Your task to perform on an android device: turn notification dots on Image 0: 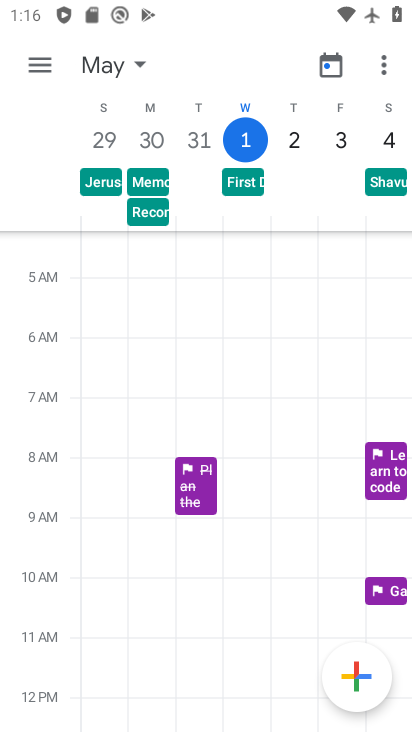
Step 0: press home button
Your task to perform on an android device: turn notification dots on Image 1: 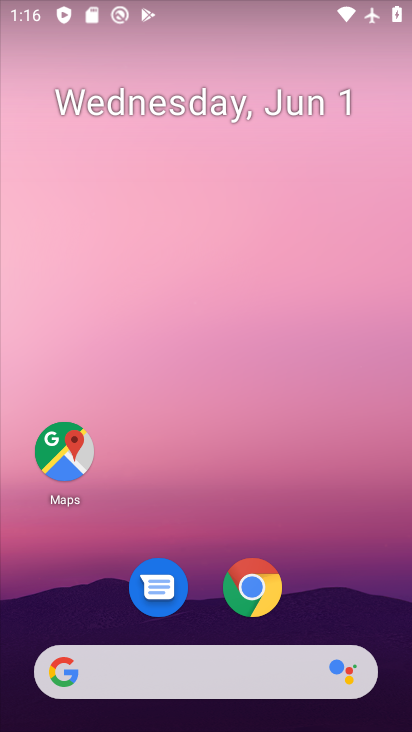
Step 1: drag from (195, 526) to (188, 27)
Your task to perform on an android device: turn notification dots on Image 2: 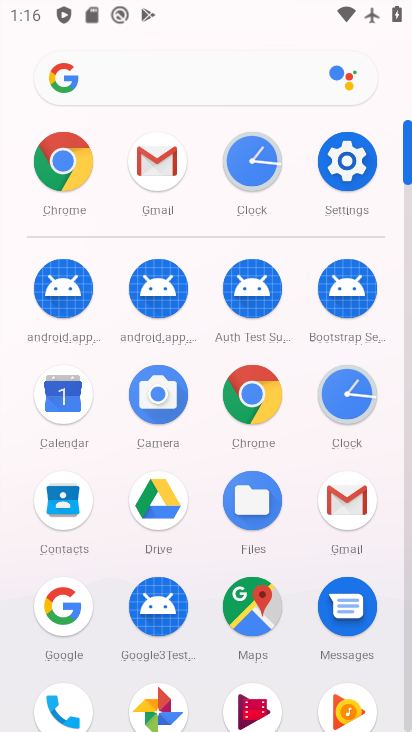
Step 2: click (340, 161)
Your task to perform on an android device: turn notification dots on Image 3: 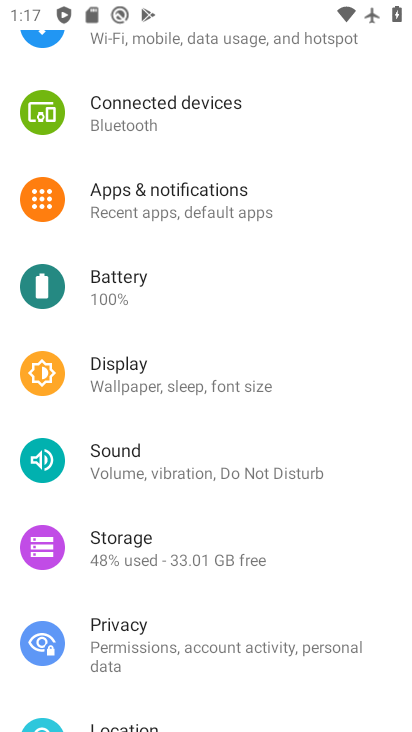
Step 3: click (193, 197)
Your task to perform on an android device: turn notification dots on Image 4: 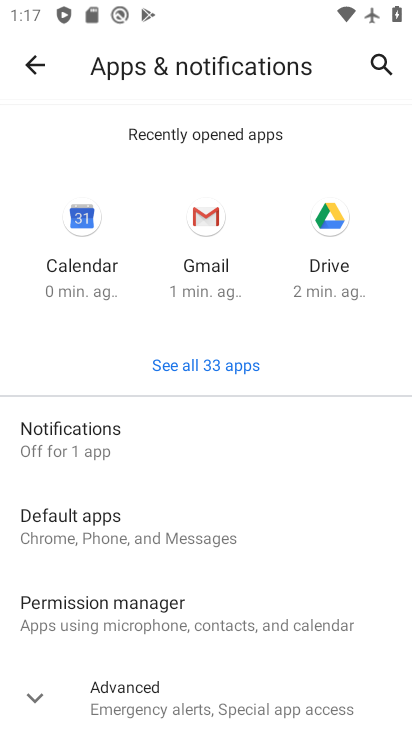
Step 4: drag from (228, 596) to (193, 345)
Your task to perform on an android device: turn notification dots on Image 5: 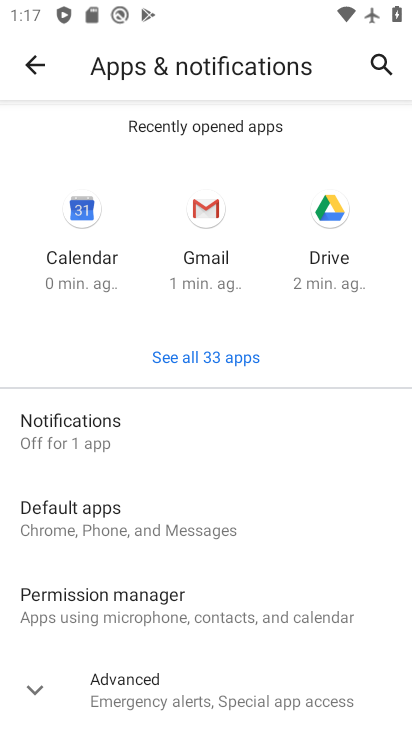
Step 5: drag from (272, 570) to (250, 374)
Your task to perform on an android device: turn notification dots on Image 6: 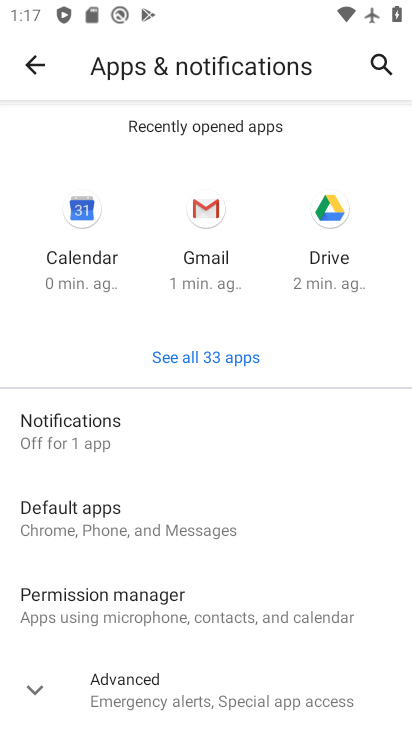
Step 6: click (43, 694)
Your task to perform on an android device: turn notification dots on Image 7: 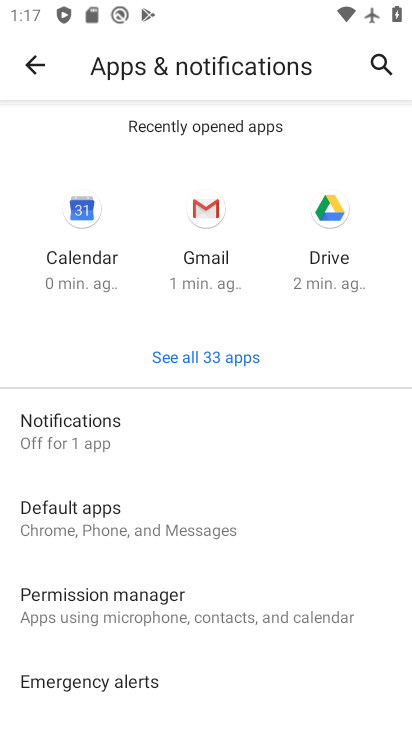
Step 7: drag from (212, 659) to (215, 343)
Your task to perform on an android device: turn notification dots on Image 8: 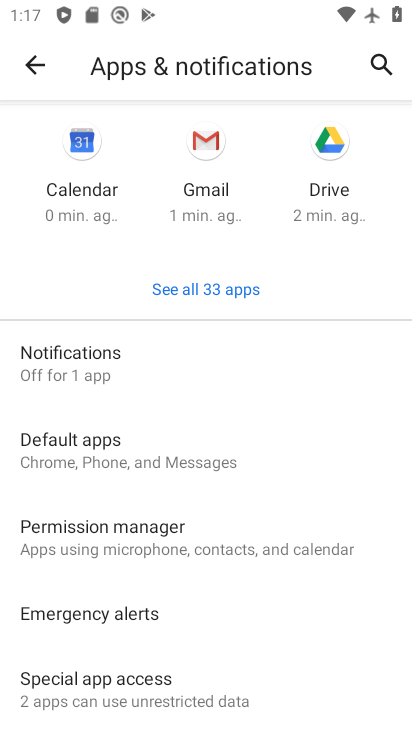
Step 8: drag from (232, 614) to (232, 350)
Your task to perform on an android device: turn notification dots on Image 9: 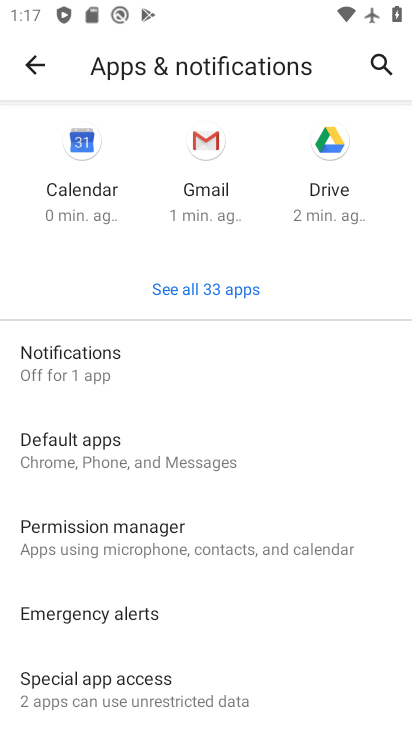
Step 9: click (67, 684)
Your task to perform on an android device: turn notification dots on Image 10: 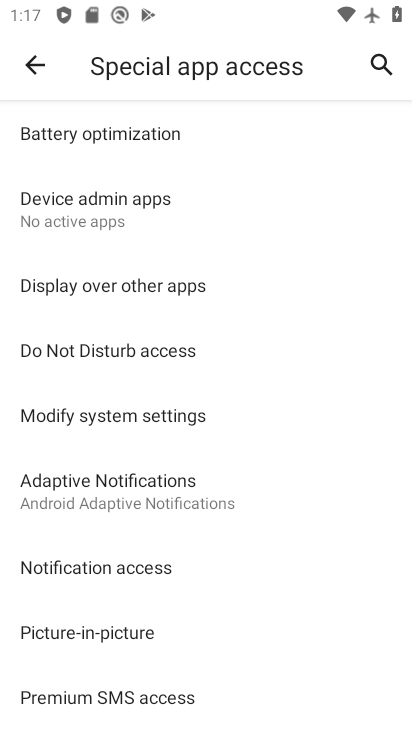
Step 10: click (31, 68)
Your task to perform on an android device: turn notification dots on Image 11: 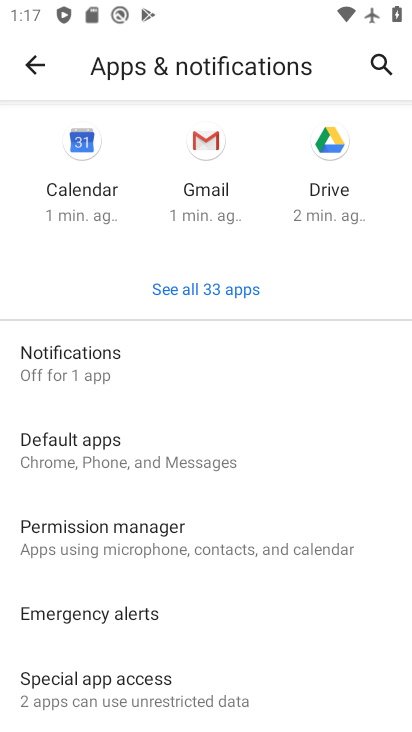
Step 11: click (95, 354)
Your task to perform on an android device: turn notification dots on Image 12: 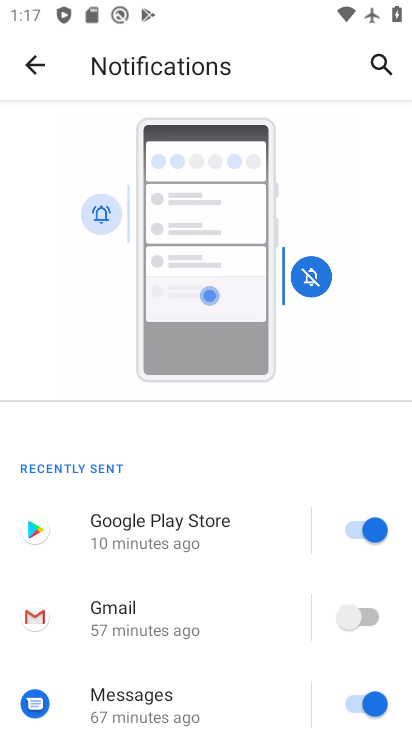
Step 12: drag from (225, 593) to (225, 331)
Your task to perform on an android device: turn notification dots on Image 13: 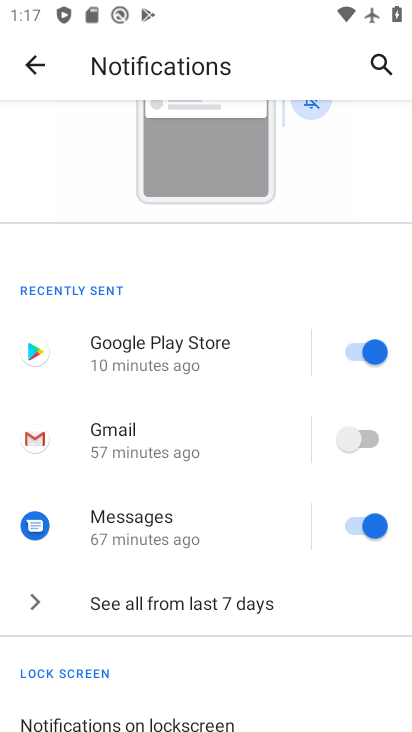
Step 13: drag from (232, 609) to (180, 219)
Your task to perform on an android device: turn notification dots on Image 14: 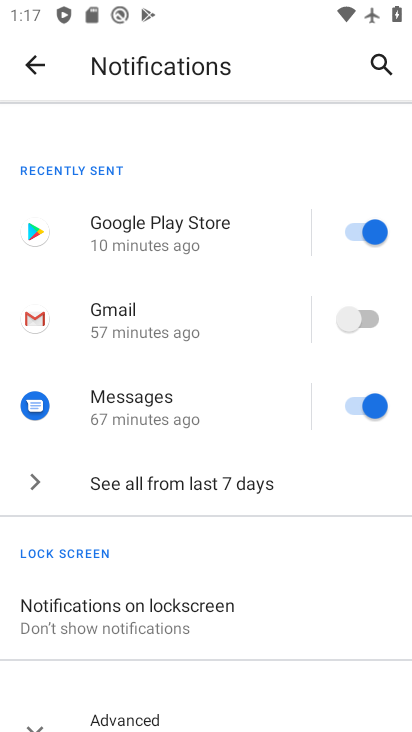
Step 14: drag from (304, 658) to (280, 430)
Your task to perform on an android device: turn notification dots on Image 15: 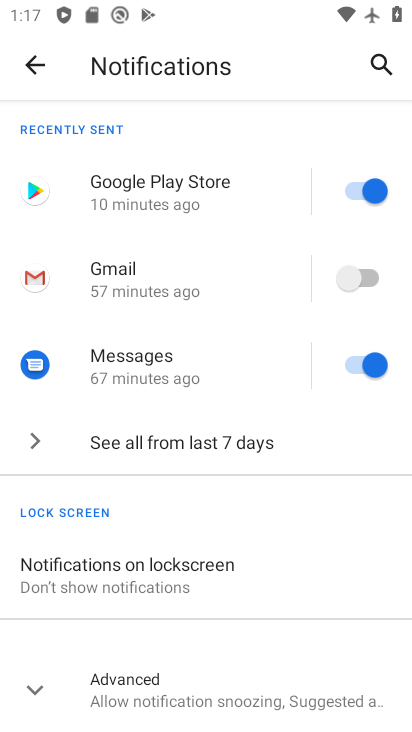
Step 15: click (31, 682)
Your task to perform on an android device: turn notification dots on Image 16: 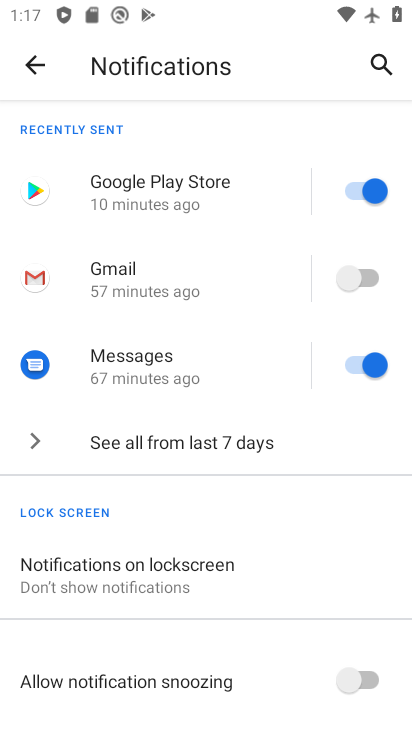
Step 16: task complete